Your task to perform on an android device: Open eBay Image 0: 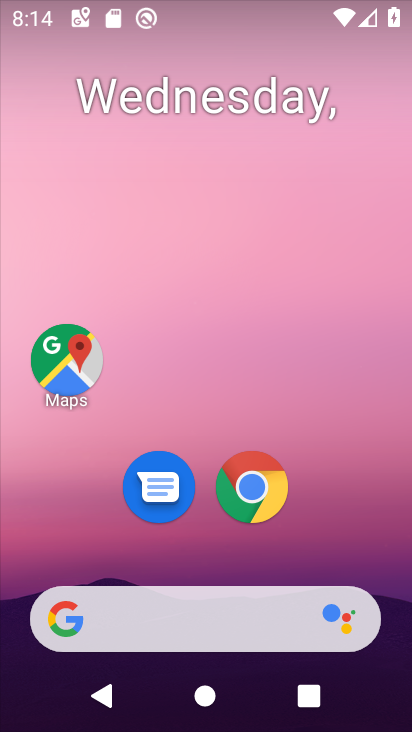
Step 0: drag from (343, 549) to (302, 9)
Your task to perform on an android device: Open eBay Image 1: 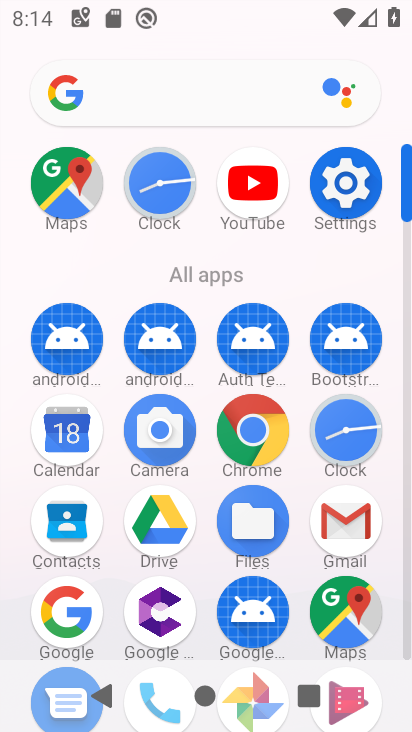
Step 1: drag from (195, 530) to (190, 320)
Your task to perform on an android device: Open eBay Image 2: 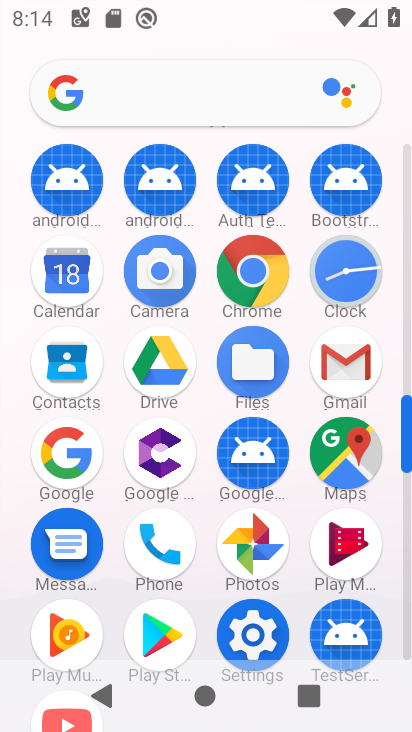
Step 2: click (61, 454)
Your task to perform on an android device: Open eBay Image 3: 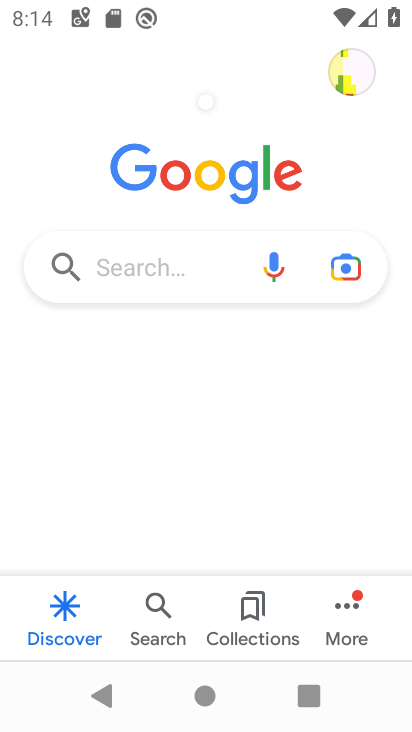
Step 3: click (159, 261)
Your task to perform on an android device: Open eBay Image 4: 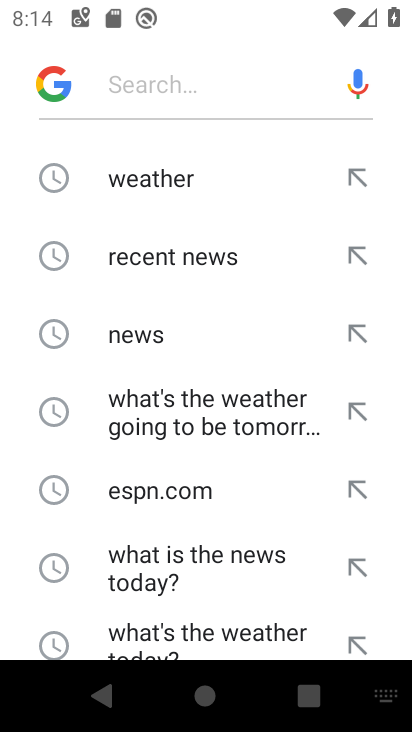
Step 4: type "eBay"
Your task to perform on an android device: Open eBay Image 5: 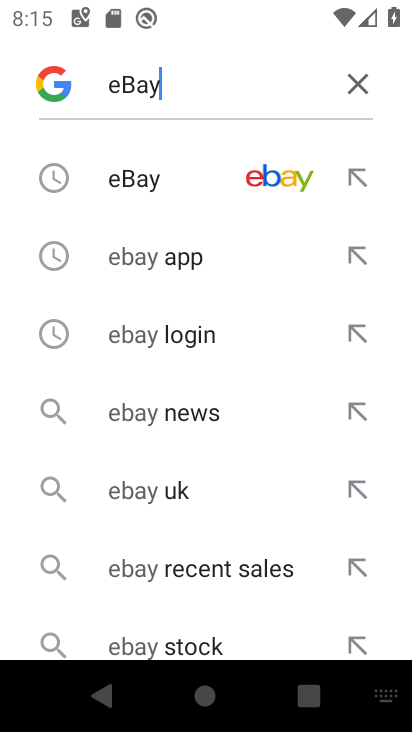
Step 5: type ""
Your task to perform on an android device: Open eBay Image 6: 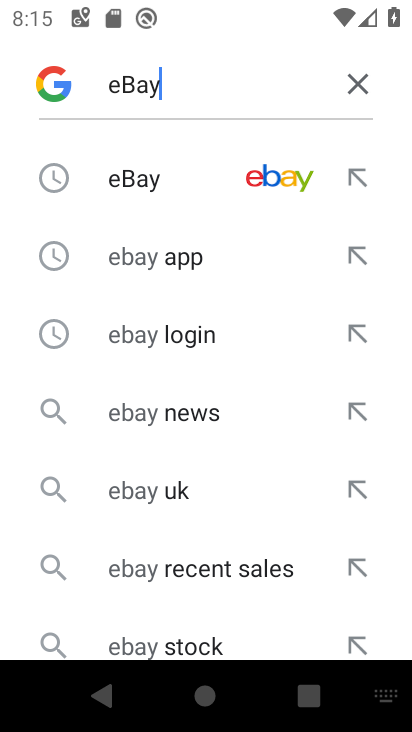
Step 6: click (133, 179)
Your task to perform on an android device: Open eBay Image 7: 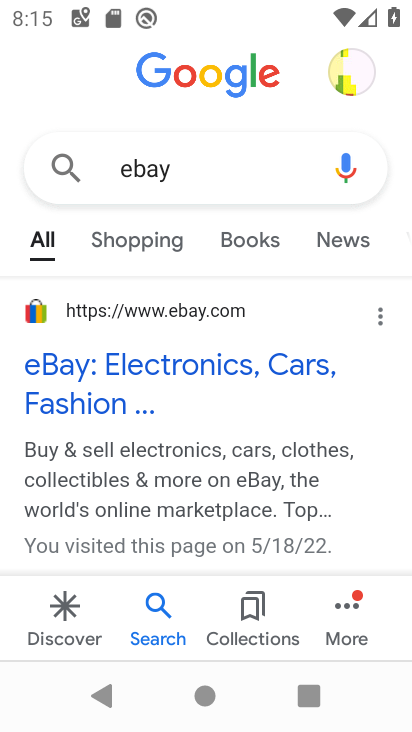
Step 7: click (154, 367)
Your task to perform on an android device: Open eBay Image 8: 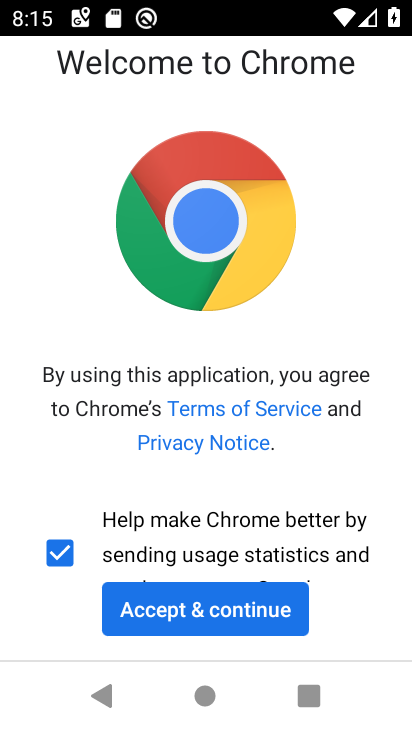
Step 8: click (205, 607)
Your task to perform on an android device: Open eBay Image 9: 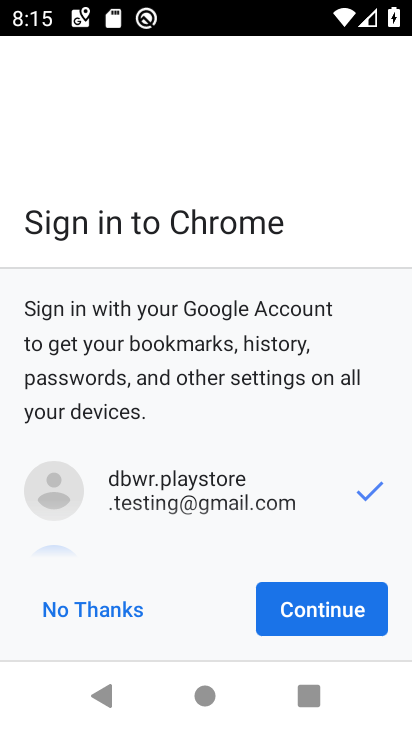
Step 9: click (322, 604)
Your task to perform on an android device: Open eBay Image 10: 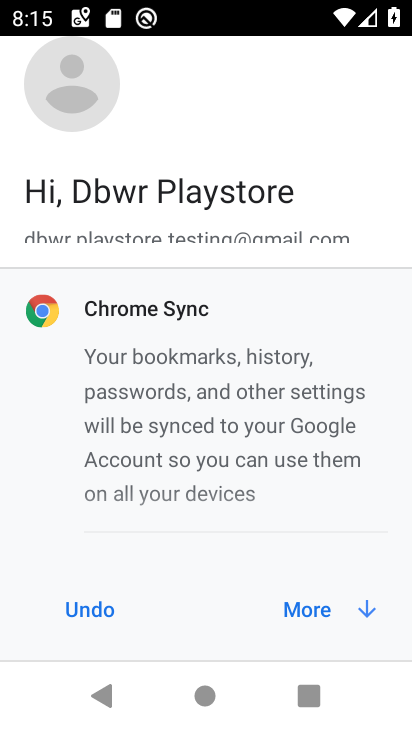
Step 10: click (303, 608)
Your task to perform on an android device: Open eBay Image 11: 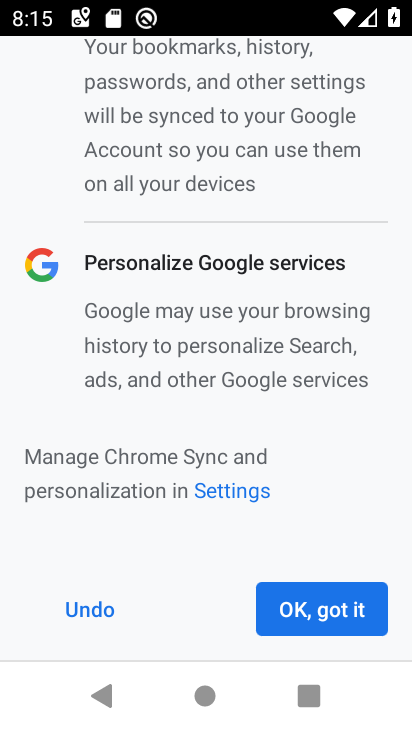
Step 11: click (303, 608)
Your task to perform on an android device: Open eBay Image 12: 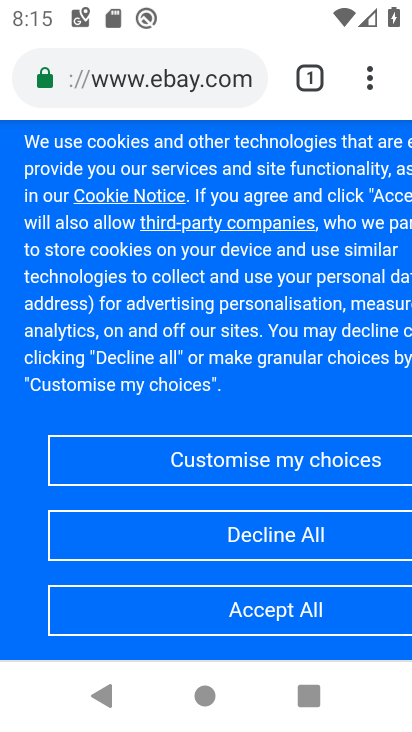
Step 12: task complete